Your task to perform on an android device: read, delete, or share a saved page in the chrome app Image 0: 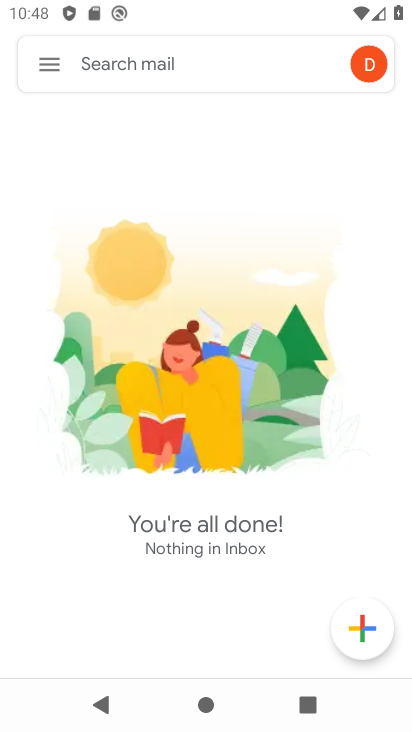
Step 0: press home button
Your task to perform on an android device: read, delete, or share a saved page in the chrome app Image 1: 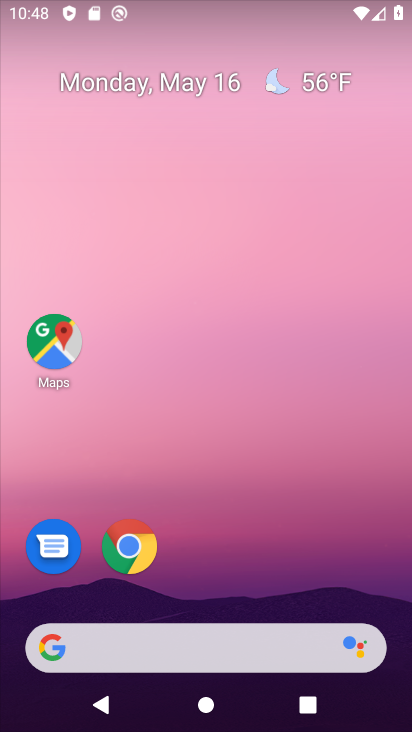
Step 1: drag from (318, 528) to (274, 39)
Your task to perform on an android device: read, delete, or share a saved page in the chrome app Image 2: 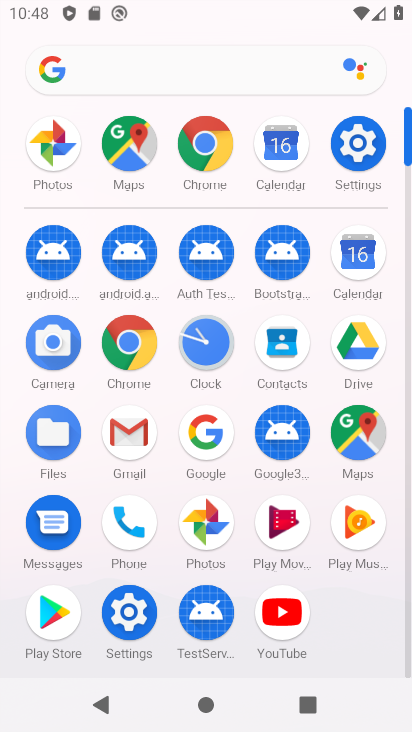
Step 2: click (218, 118)
Your task to perform on an android device: read, delete, or share a saved page in the chrome app Image 3: 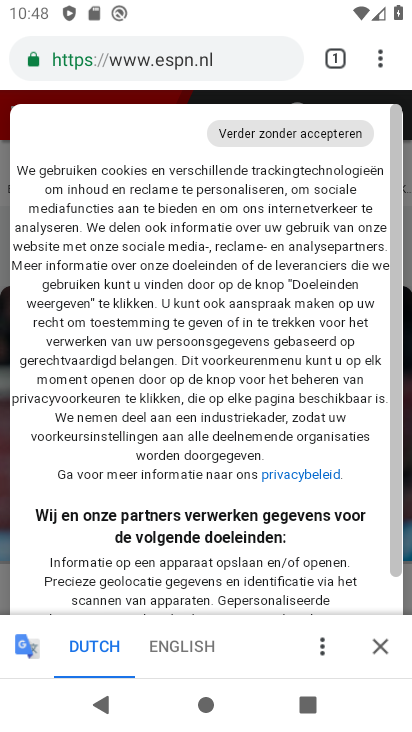
Step 3: task complete